Your task to perform on an android device: Open Youtube and go to "Your channel" Image 0: 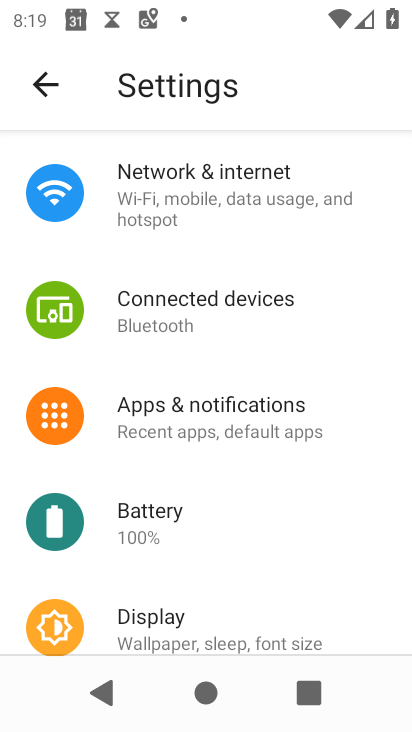
Step 0: press home button
Your task to perform on an android device: Open Youtube and go to "Your channel" Image 1: 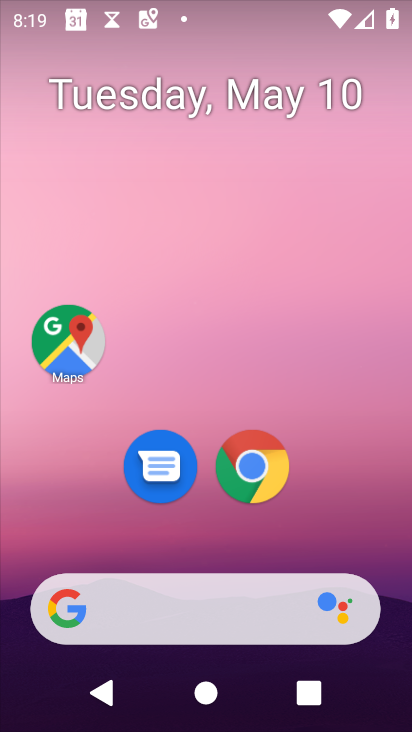
Step 1: drag from (211, 534) to (312, 142)
Your task to perform on an android device: Open Youtube and go to "Your channel" Image 2: 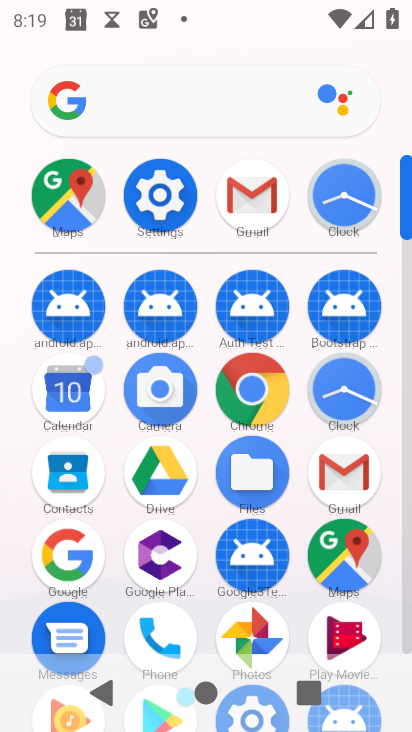
Step 2: drag from (207, 604) to (211, 366)
Your task to perform on an android device: Open Youtube and go to "Your channel" Image 3: 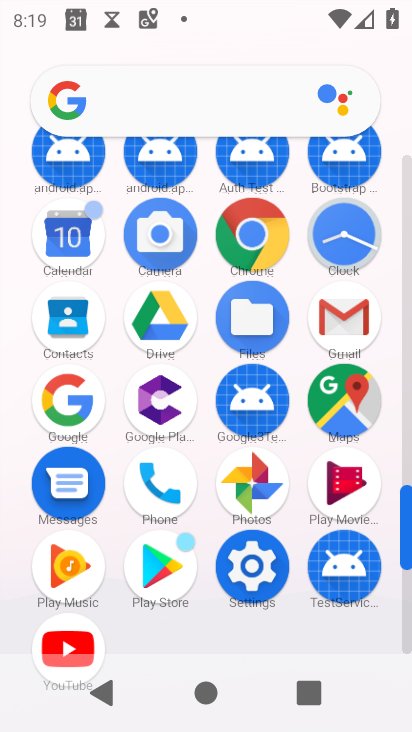
Step 3: click (69, 631)
Your task to perform on an android device: Open Youtube and go to "Your channel" Image 4: 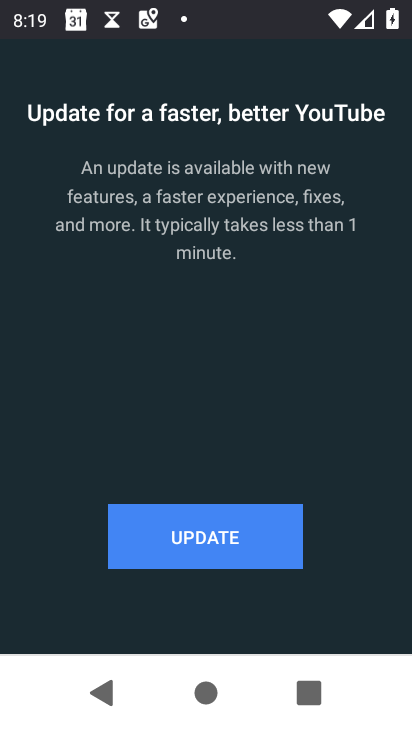
Step 4: click (159, 564)
Your task to perform on an android device: Open Youtube and go to "Your channel" Image 5: 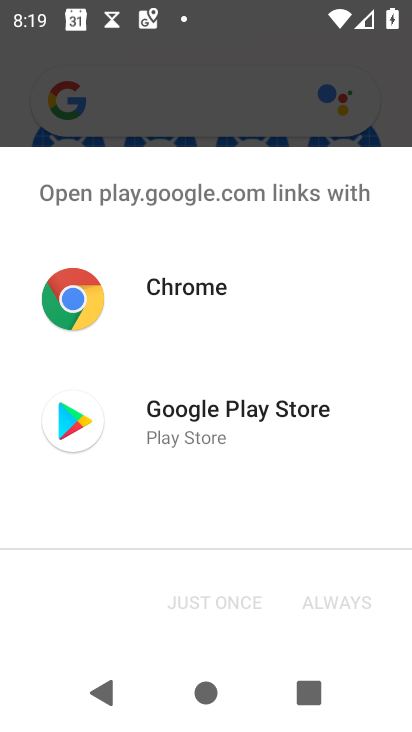
Step 5: click (197, 408)
Your task to perform on an android device: Open Youtube and go to "Your channel" Image 6: 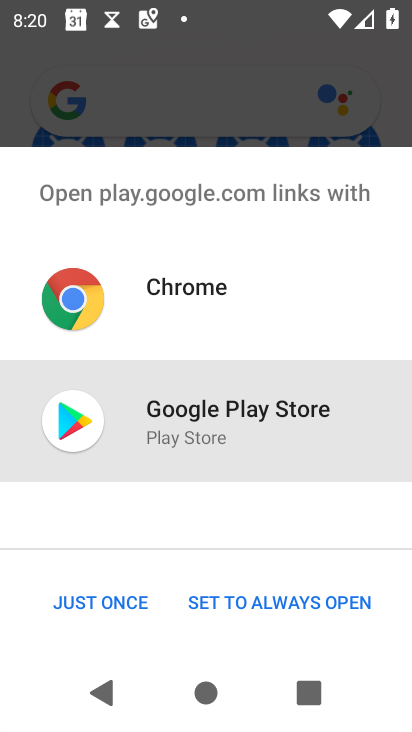
Step 6: click (98, 601)
Your task to perform on an android device: Open Youtube and go to "Your channel" Image 7: 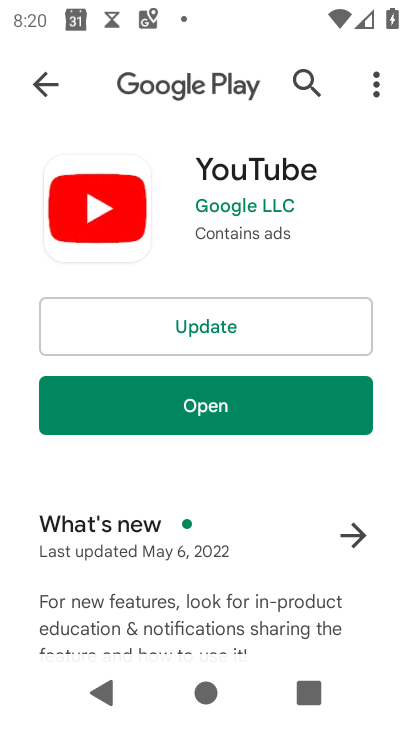
Step 7: click (166, 321)
Your task to perform on an android device: Open Youtube and go to "Your channel" Image 8: 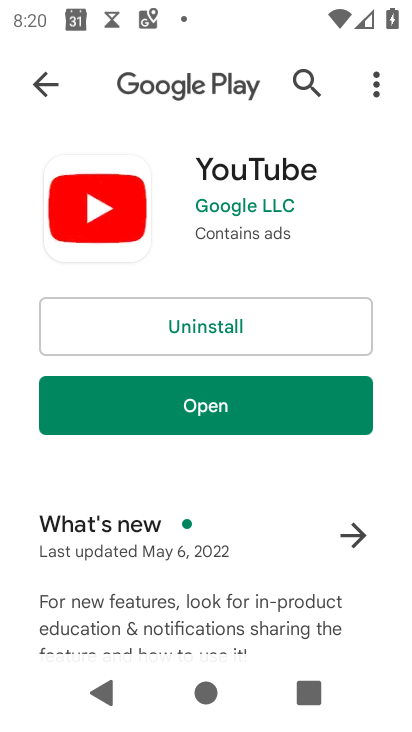
Step 8: click (174, 393)
Your task to perform on an android device: Open Youtube and go to "Your channel" Image 9: 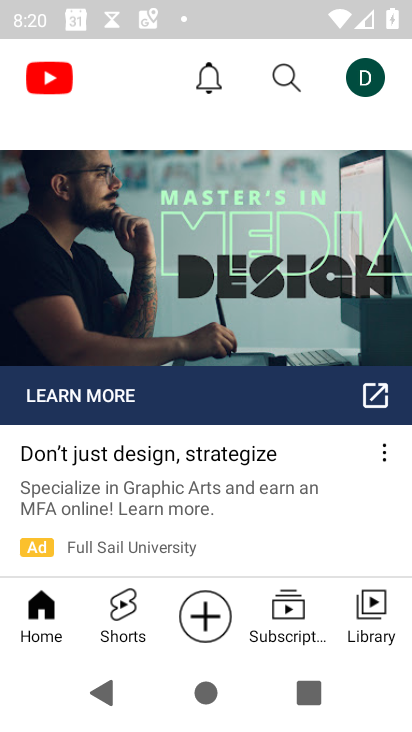
Step 9: click (360, 89)
Your task to perform on an android device: Open Youtube and go to "Your channel" Image 10: 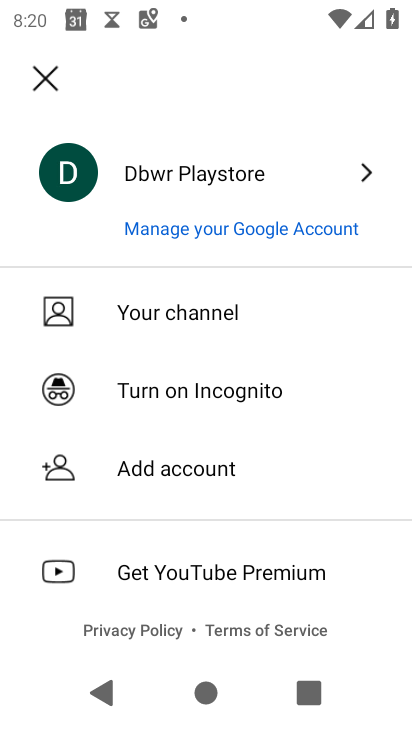
Step 10: click (87, 324)
Your task to perform on an android device: Open Youtube and go to "Your channel" Image 11: 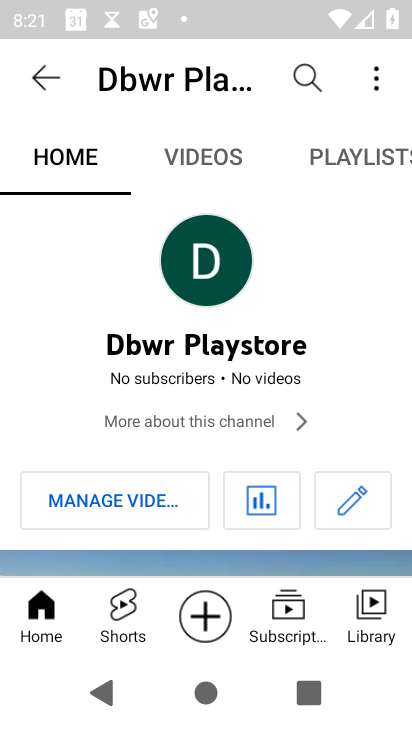
Step 11: task complete